Your task to perform on an android device: Go to Google Image 0: 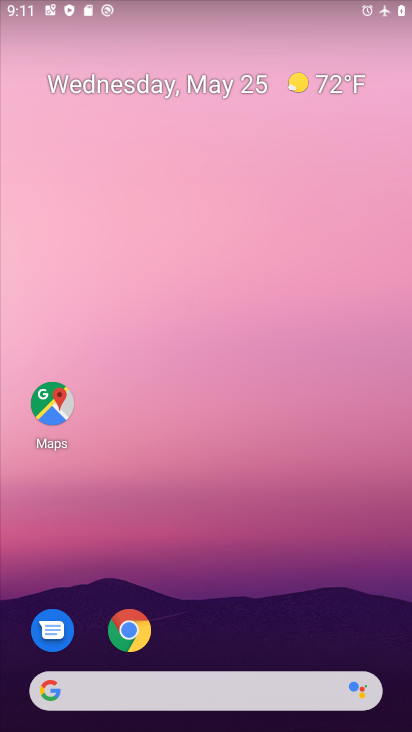
Step 0: drag from (221, 585) to (221, 212)
Your task to perform on an android device: Go to Google Image 1: 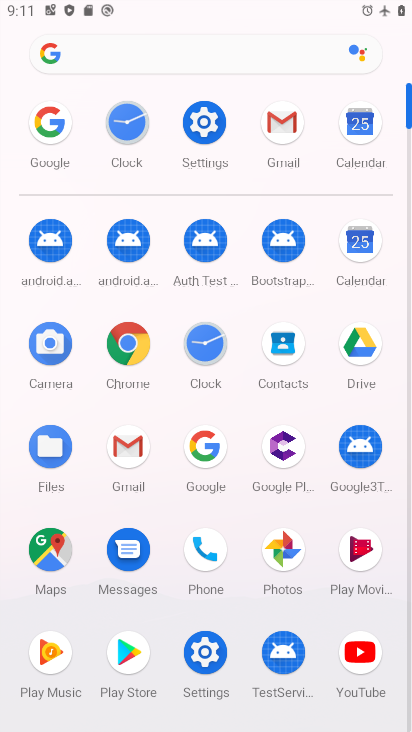
Step 1: click (54, 128)
Your task to perform on an android device: Go to Google Image 2: 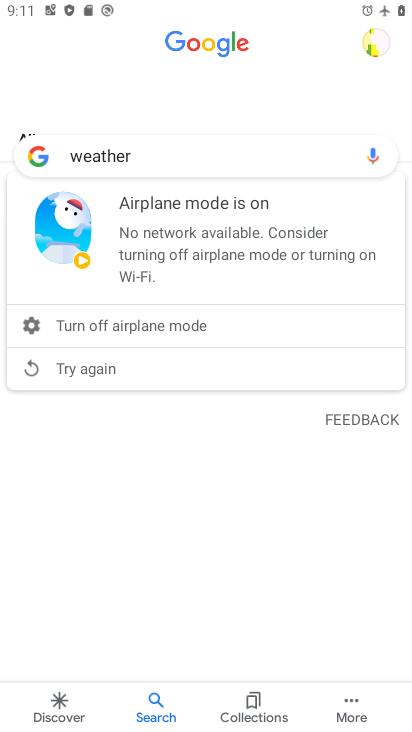
Step 2: task complete